Your task to perform on an android device: open a bookmark in the chrome app Image 0: 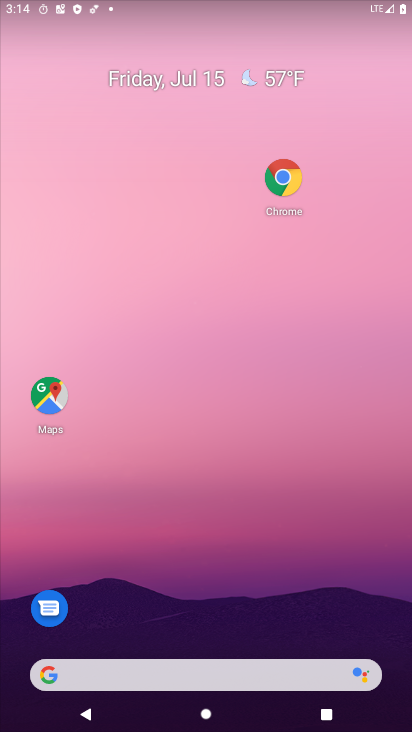
Step 0: click (286, 173)
Your task to perform on an android device: open a bookmark in the chrome app Image 1: 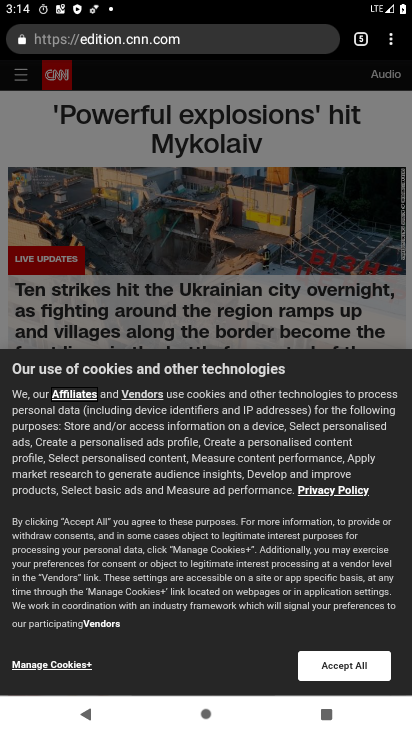
Step 1: task complete